Your task to perform on an android device: Add "razer blackwidow" to the cart on amazon, then select checkout. Image 0: 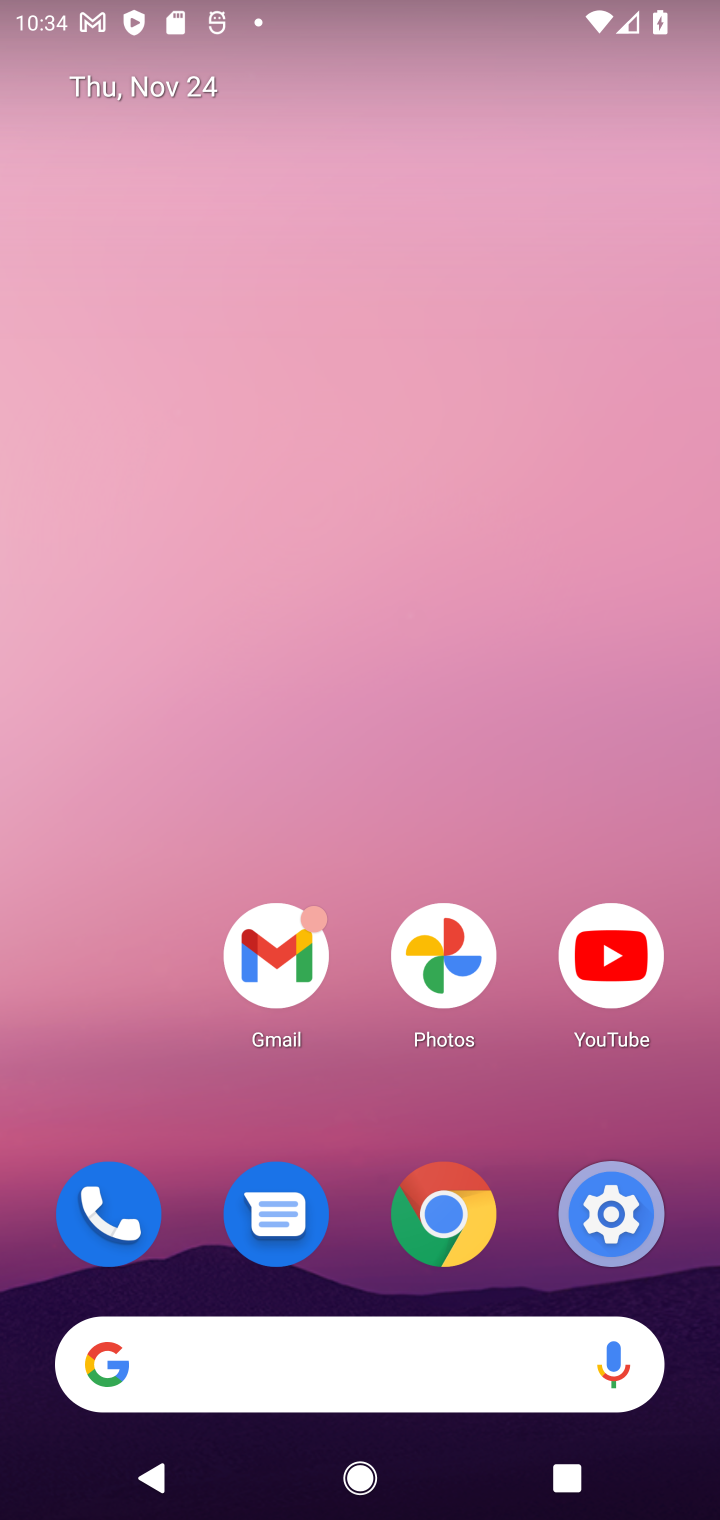
Step 0: click (391, 1382)
Your task to perform on an android device: Add "razer blackwidow" to the cart on amazon, then select checkout. Image 1: 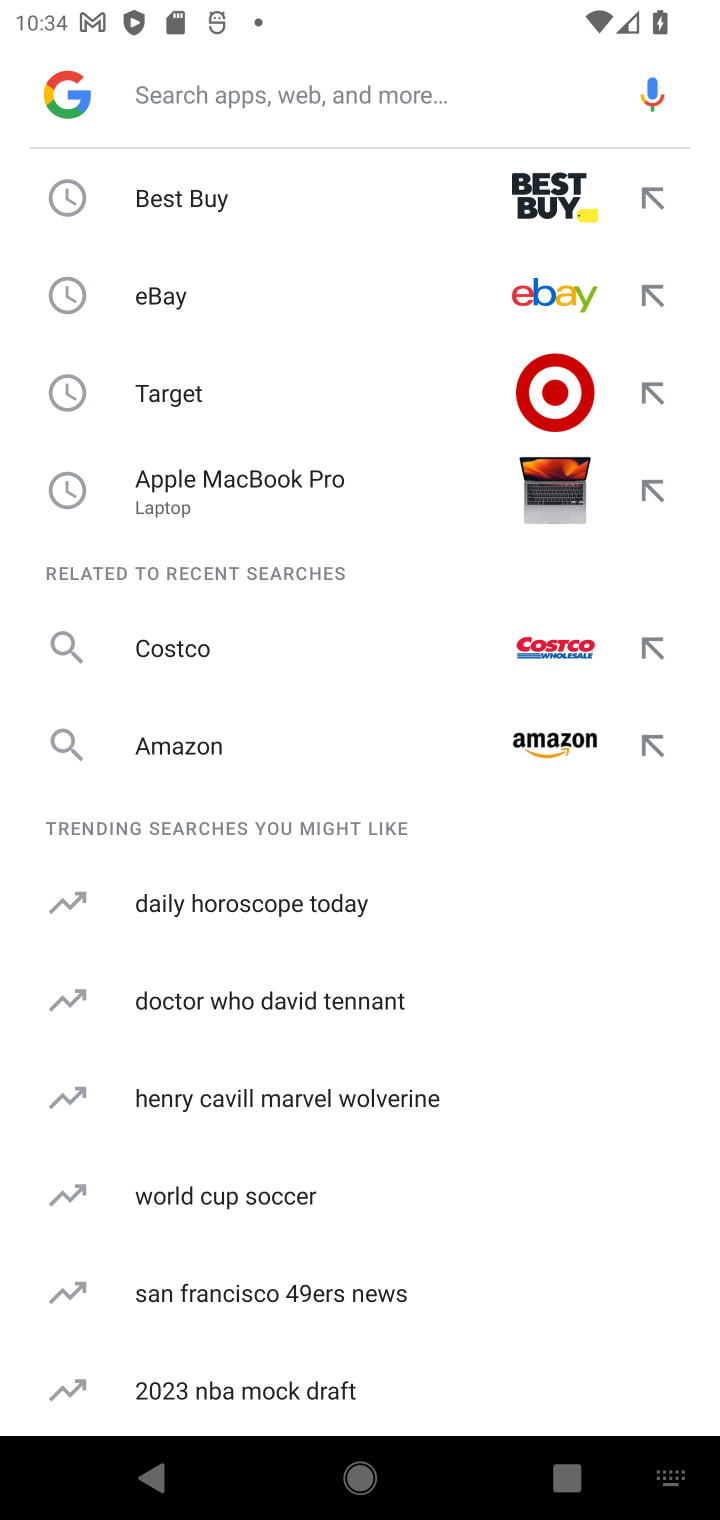
Step 1: click (331, 750)
Your task to perform on an android device: Add "razer blackwidow" to the cart on amazon, then select checkout. Image 2: 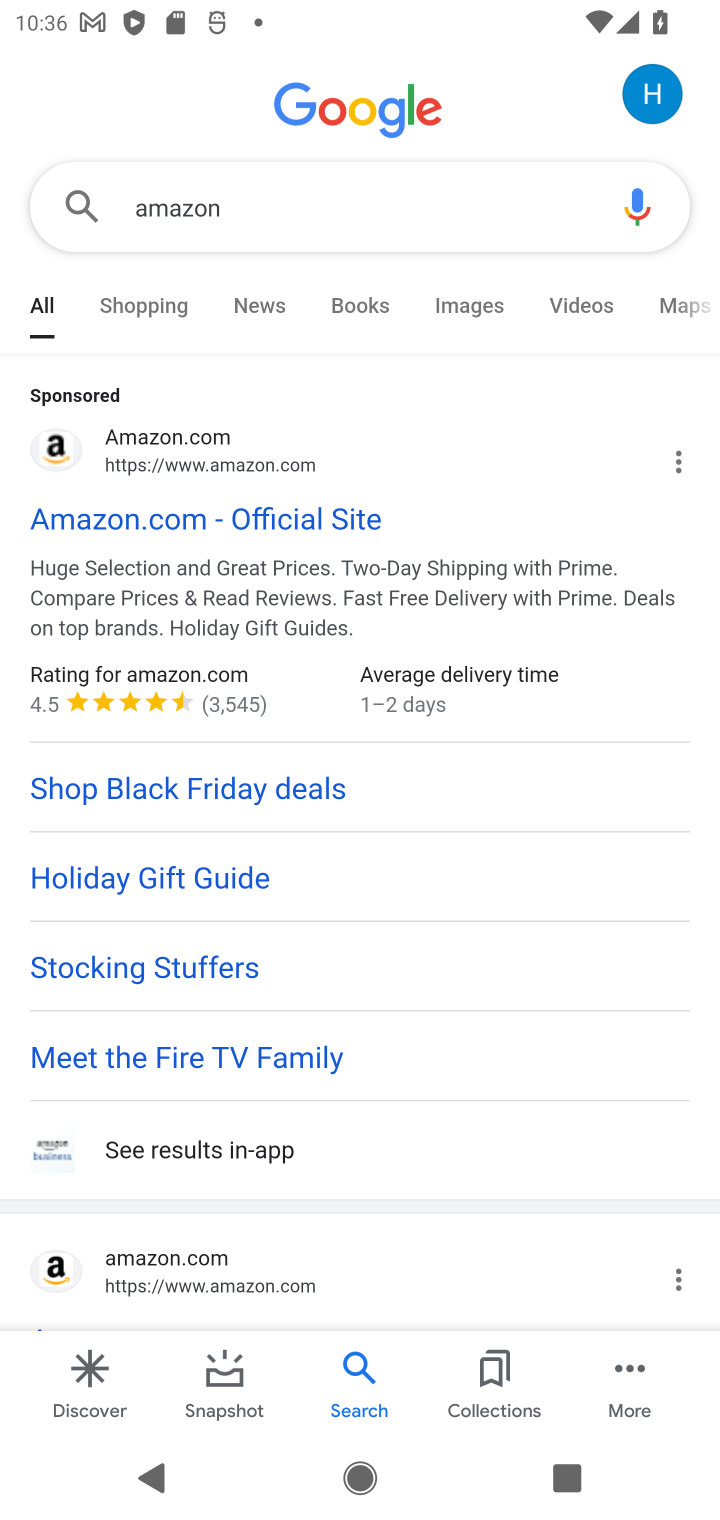
Step 2: click (147, 504)
Your task to perform on an android device: Add "razer blackwidow" to the cart on amazon, then select checkout. Image 3: 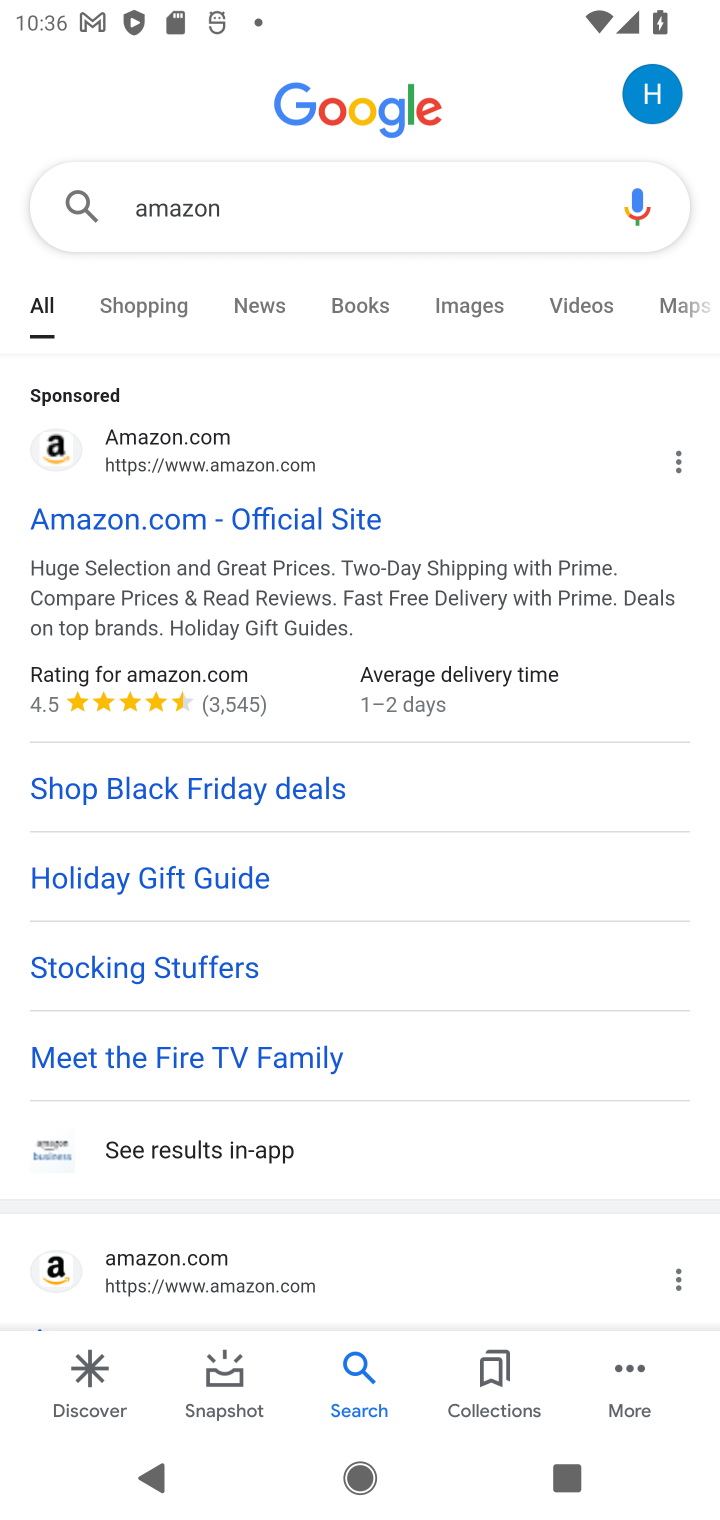
Step 3: task complete